Your task to perform on an android device: Open Google Chrome and click the shortcut for Amazon.com Image 0: 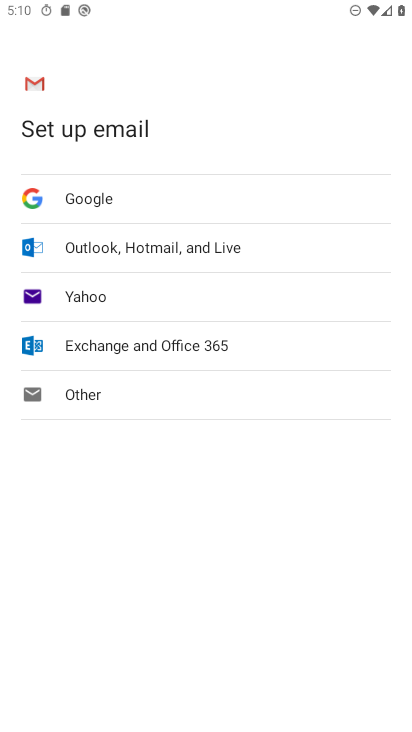
Step 0: press home button
Your task to perform on an android device: Open Google Chrome and click the shortcut for Amazon.com Image 1: 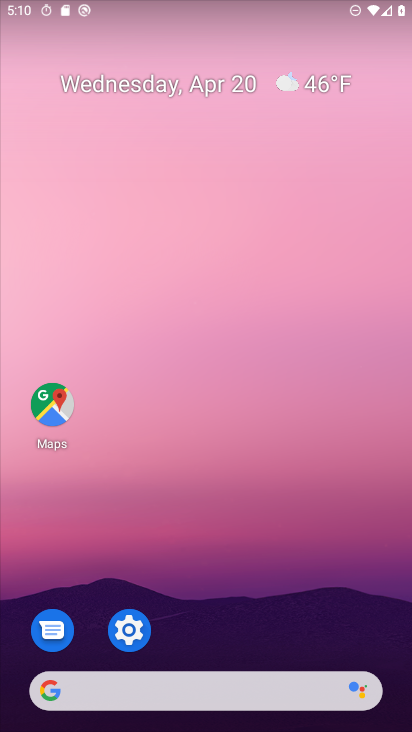
Step 1: drag from (308, 601) to (316, 6)
Your task to perform on an android device: Open Google Chrome and click the shortcut for Amazon.com Image 2: 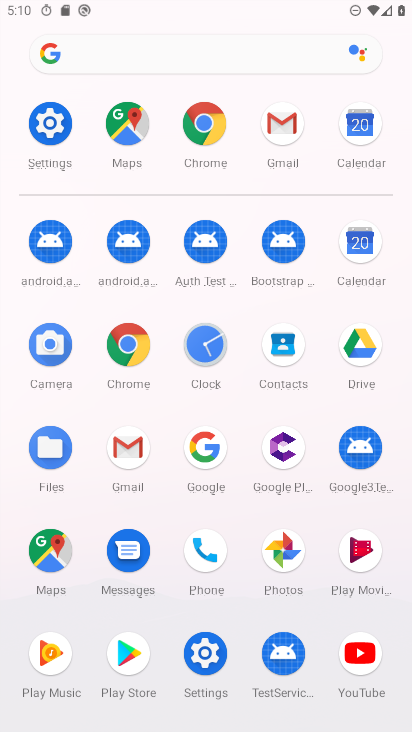
Step 2: click (135, 347)
Your task to perform on an android device: Open Google Chrome and click the shortcut for Amazon.com Image 3: 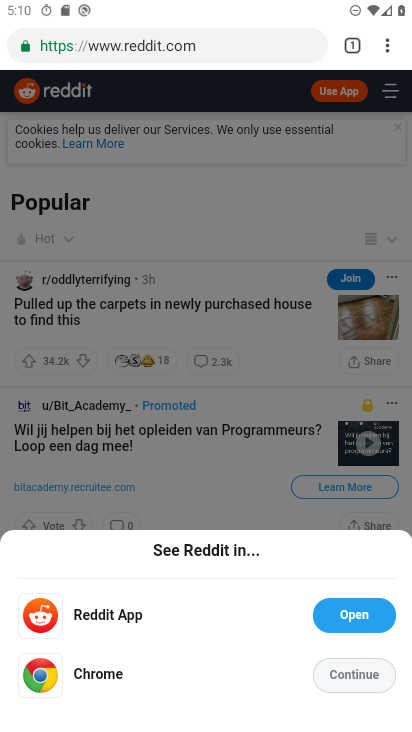
Step 3: click (379, 42)
Your task to perform on an android device: Open Google Chrome and click the shortcut for Amazon.com Image 4: 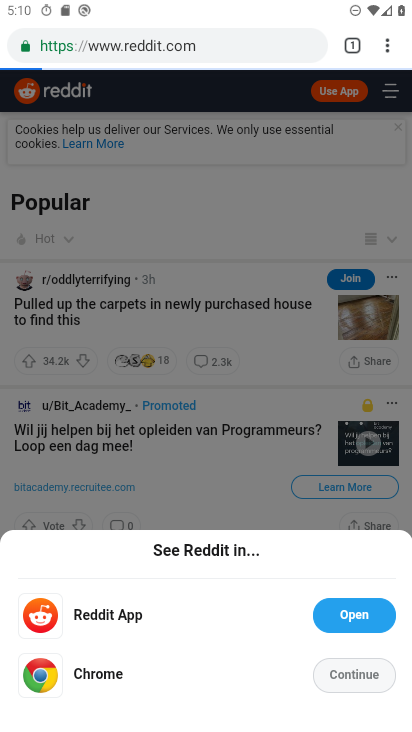
Step 4: click (273, 45)
Your task to perform on an android device: Open Google Chrome and click the shortcut for Amazon.com Image 5: 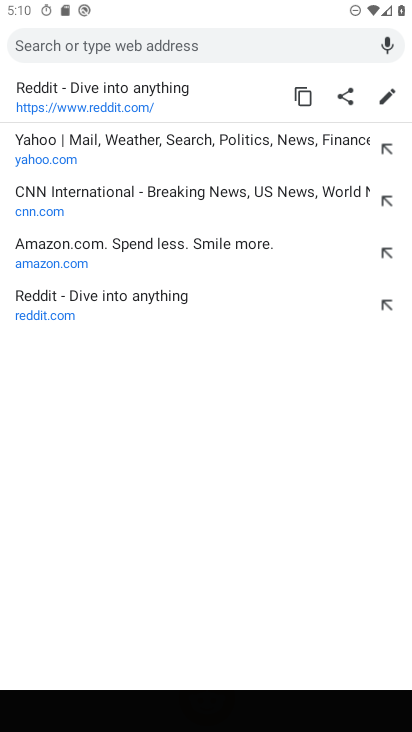
Step 5: click (273, 45)
Your task to perform on an android device: Open Google Chrome and click the shortcut for Amazon.com Image 6: 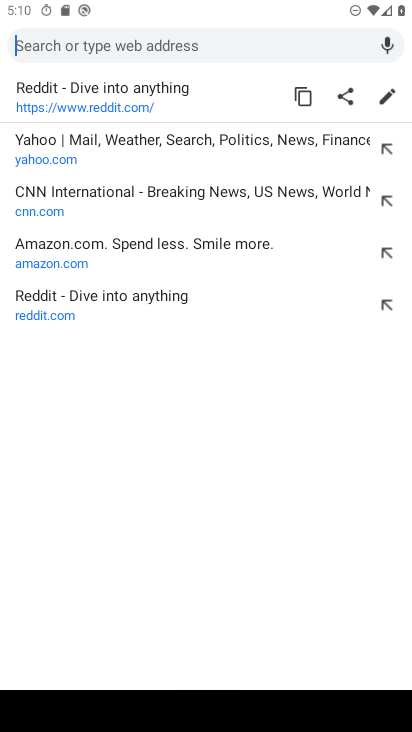
Step 6: click (273, 45)
Your task to perform on an android device: Open Google Chrome and click the shortcut for Amazon.com Image 7: 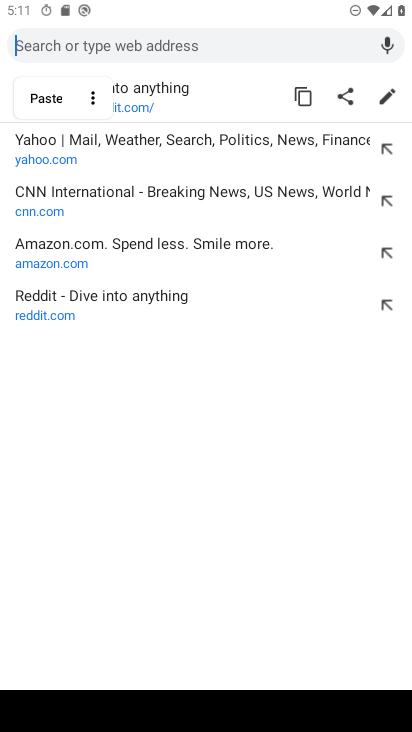
Step 7: type "amazon"
Your task to perform on an android device: Open Google Chrome and click the shortcut for Amazon.com Image 8: 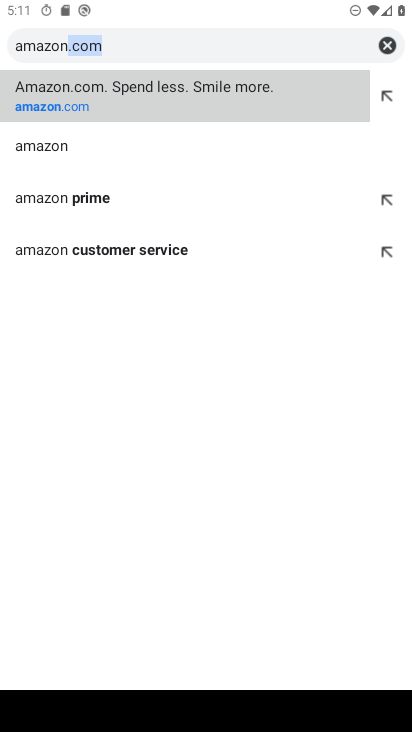
Step 8: click (131, 99)
Your task to perform on an android device: Open Google Chrome and click the shortcut for Amazon.com Image 9: 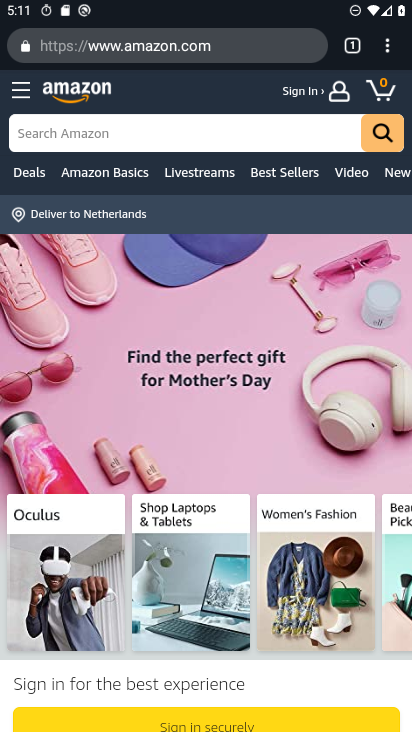
Step 9: task complete